Your task to perform on an android device: Open CNN.com Image 0: 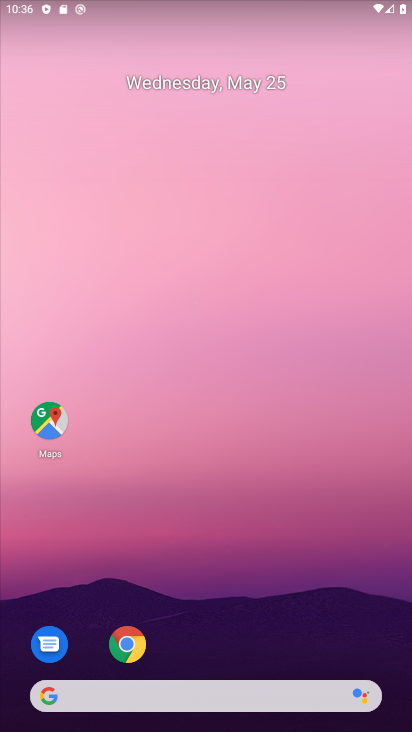
Step 0: click (152, 698)
Your task to perform on an android device: Open CNN.com Image 1: 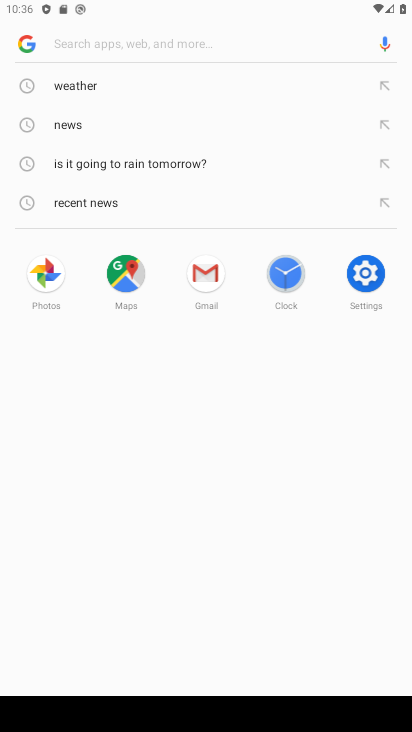
Step 1: type "CNN.com"
Your task to perform on an android device: Open CNN.com Image 2: 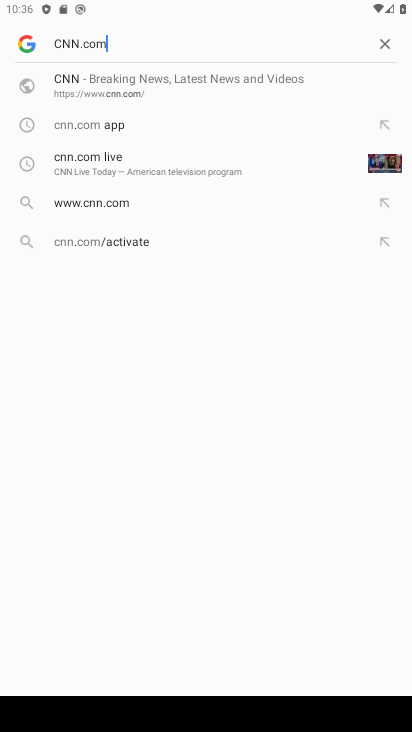
Step 2: click (121, 94)
Your task to perform on an android device: Open CNN.com Image 3: 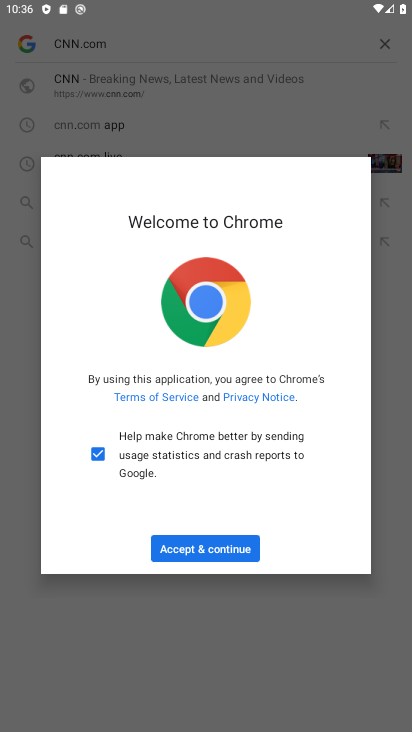
Step 3: click (249, 550)
Your task to perform on an android device: Open CNN.com Image 4: 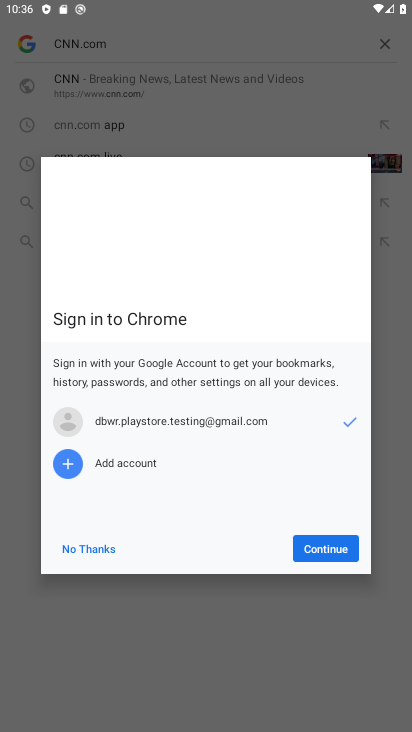
Step 4: click (317, 555)
Your task to perform on an android device: Open CNN.com Image 5: 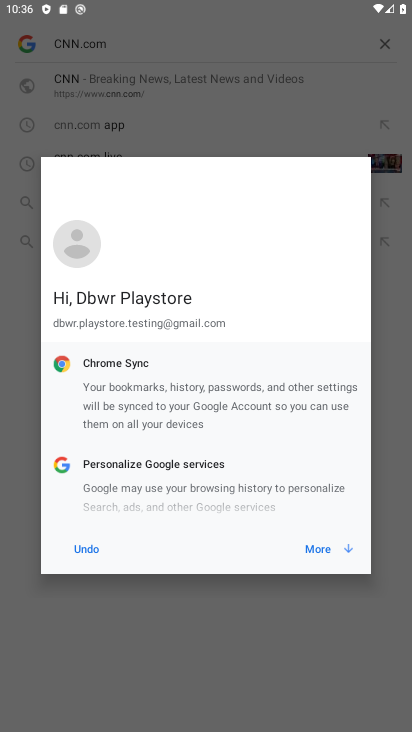
Step 5: click (318, 555)
Your task to perform on an android device: Open CNN.com Image 6: 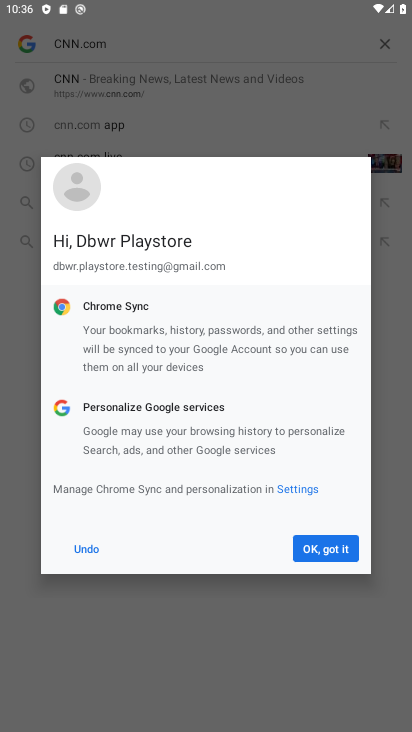
Step 6: click (318, 555)
Your task to perform on an android device: Open CNN.com Image 7: 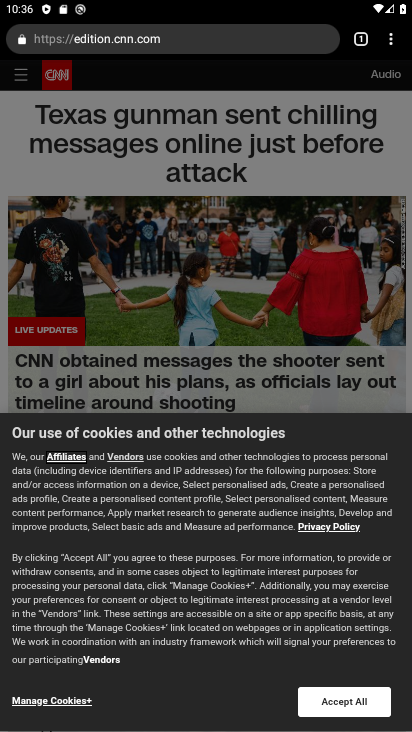
Step 7: click (343, 705)
Your task to perform on an android device: Open CNN.com Image 8: 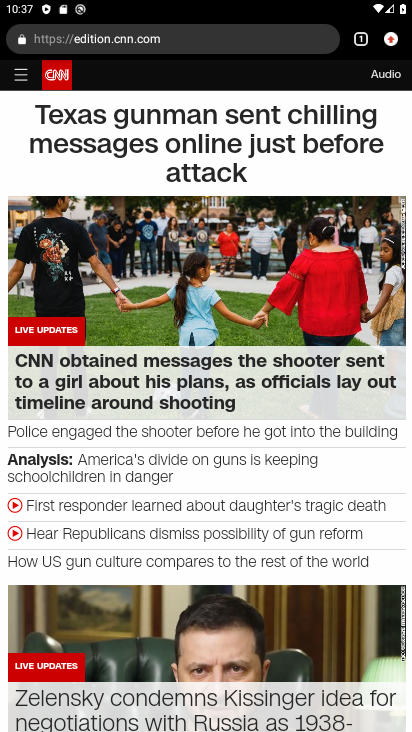
Step 8: task complete